Your task to perform on an android device: Open Yahoo.com Image 0: 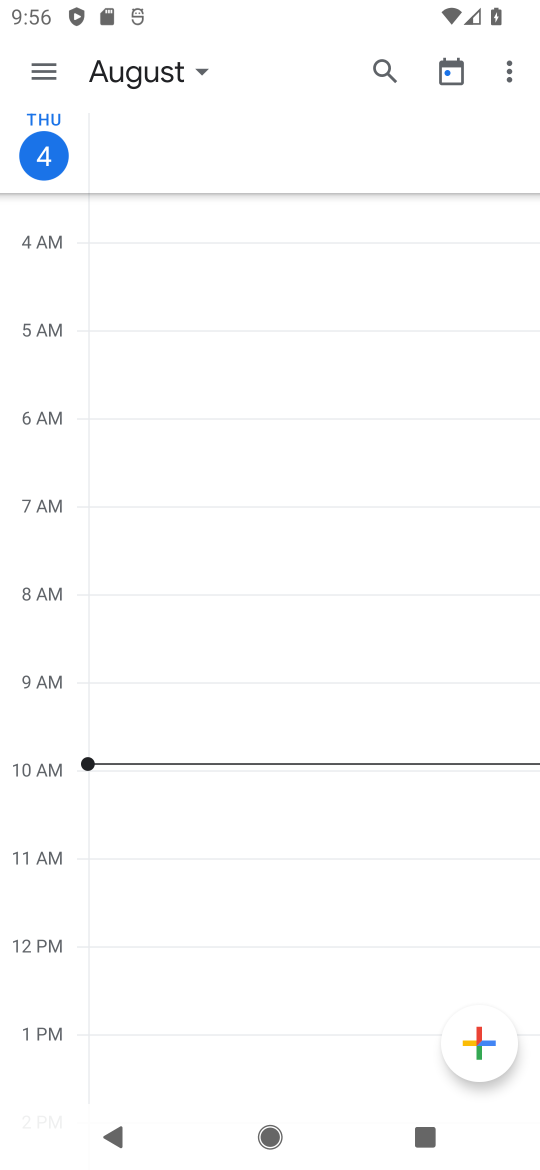
Step 0: press home button
Your task to perform on an android device: Open Yahoo.com Image 1: 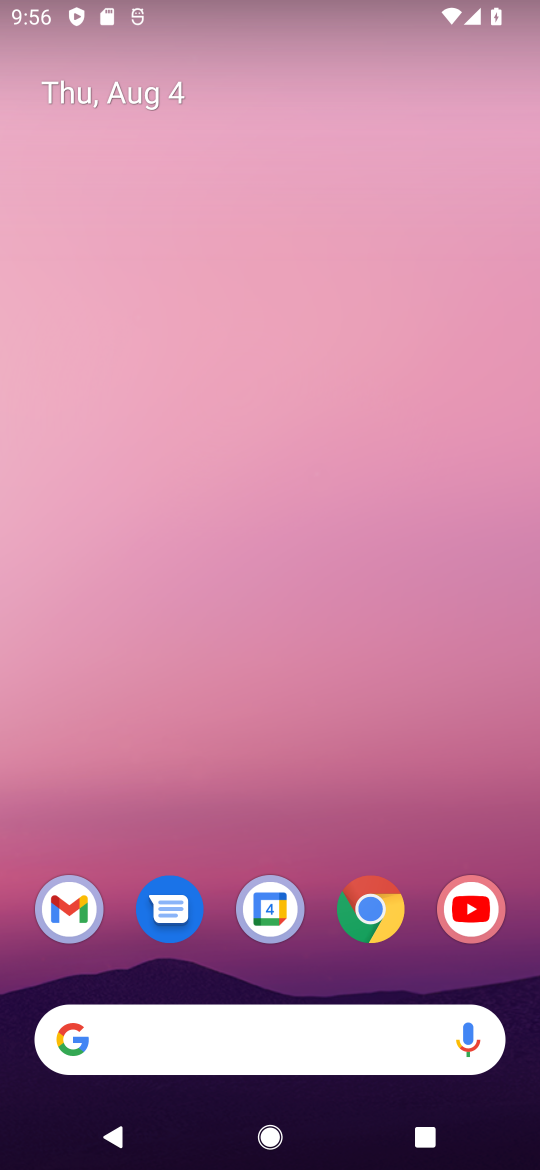
Step 1: click (376, 921)
Your task to perform on an android device: Open Yahoo.com Image 2: 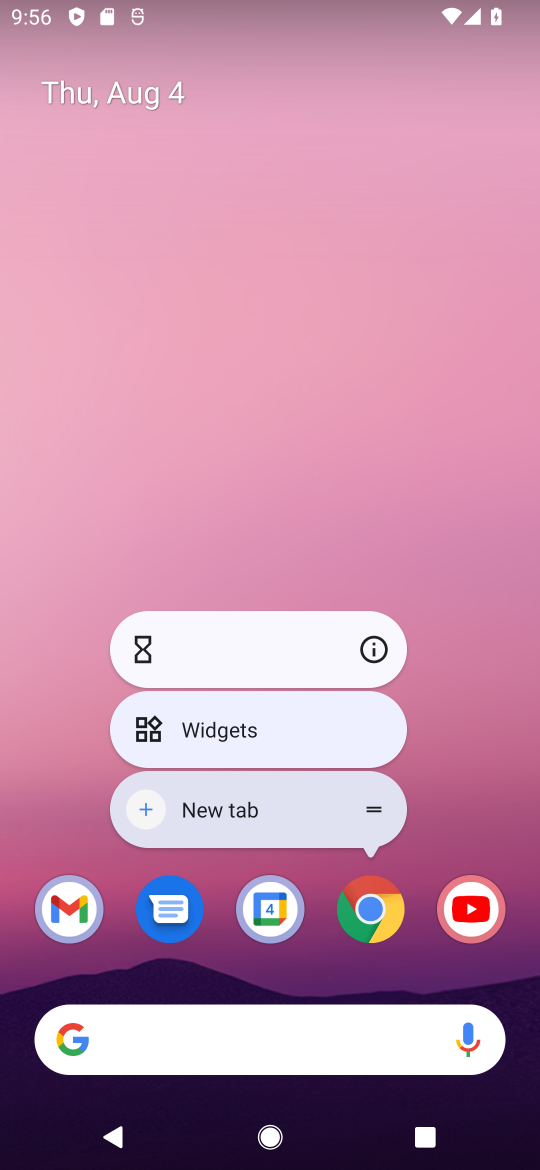
Step 2: click (373, 918)
Your task to perform on an android device: Open Yahoo.com Image 3: 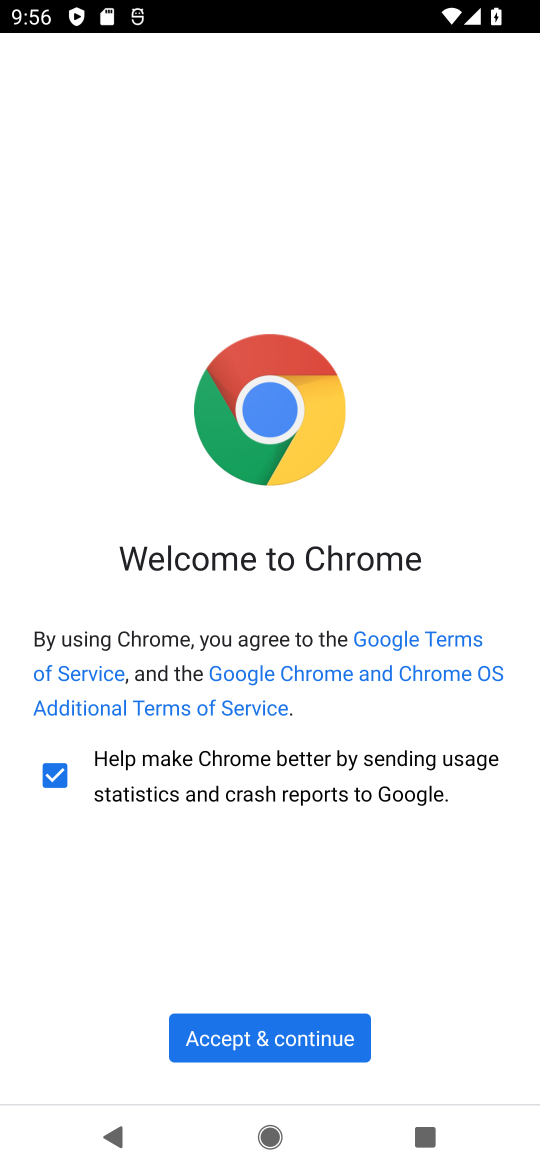
Step 3: click (224, 1030)
Your task to perform on an android device: Open Yahoo.com Image 4: 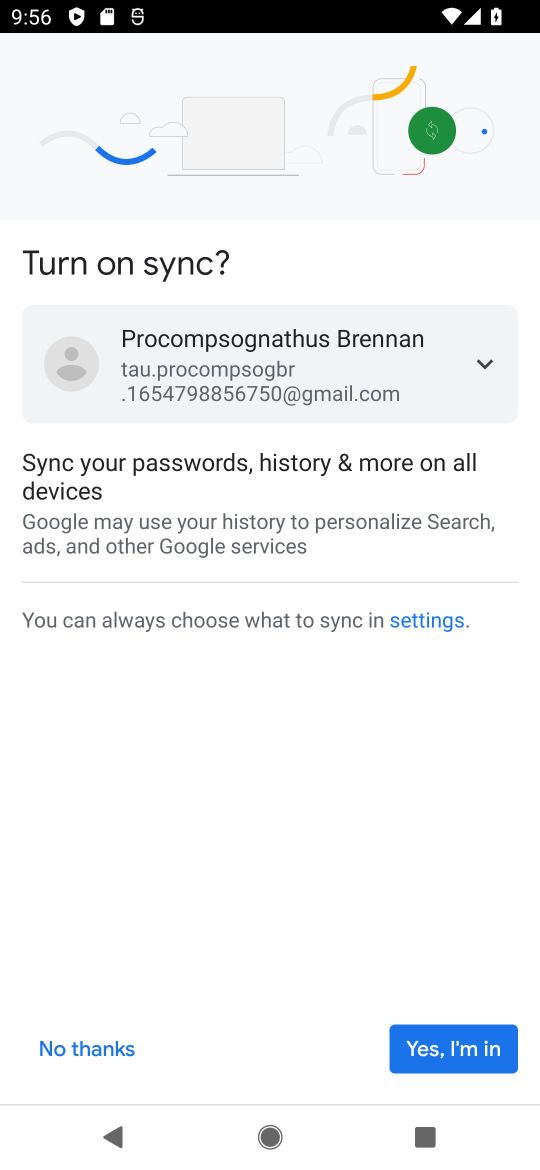
Step 4: click (86, 1057)
Your task to perform on an android device: Open Yahoo.com Image 5: 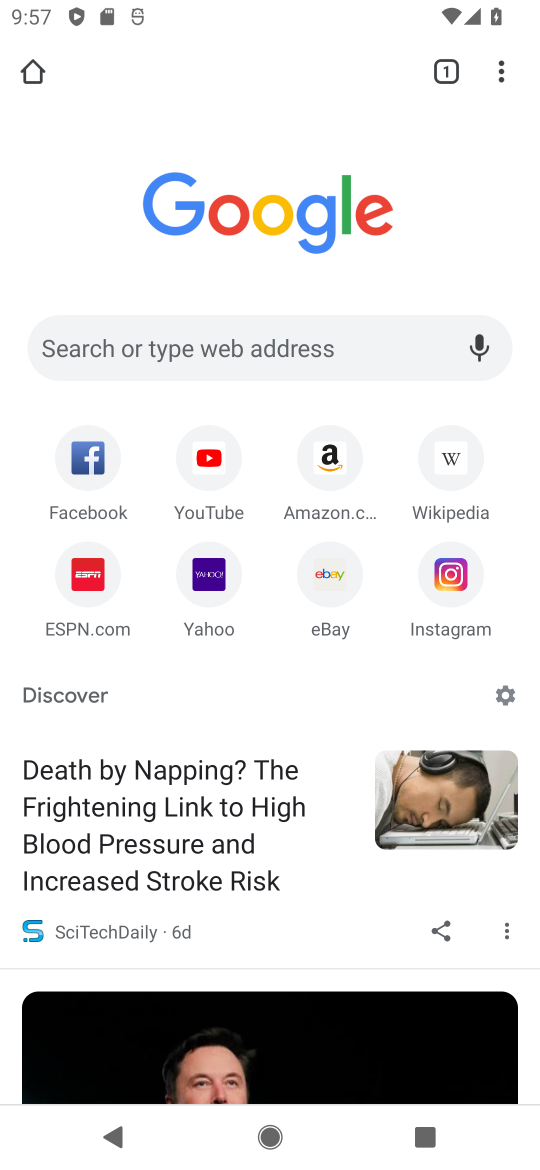
Step 5: click (203, 578)
Your task to perform on an android device: Open Yahoo.com Image 6: 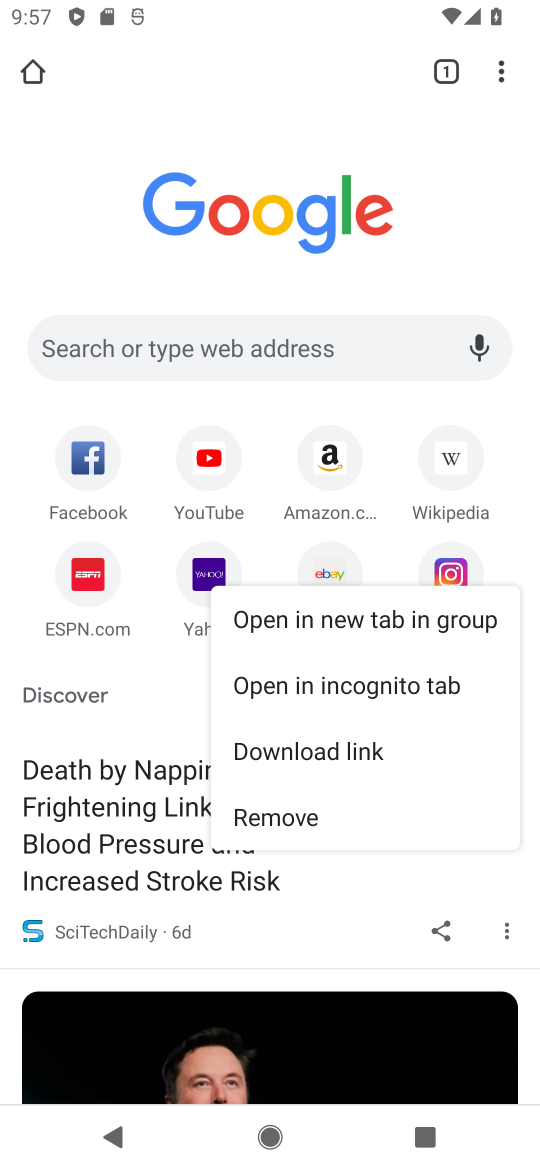
Step 6: click (203, 578)
Your task to perform on an android device: Open Yahoo.com Image 7: 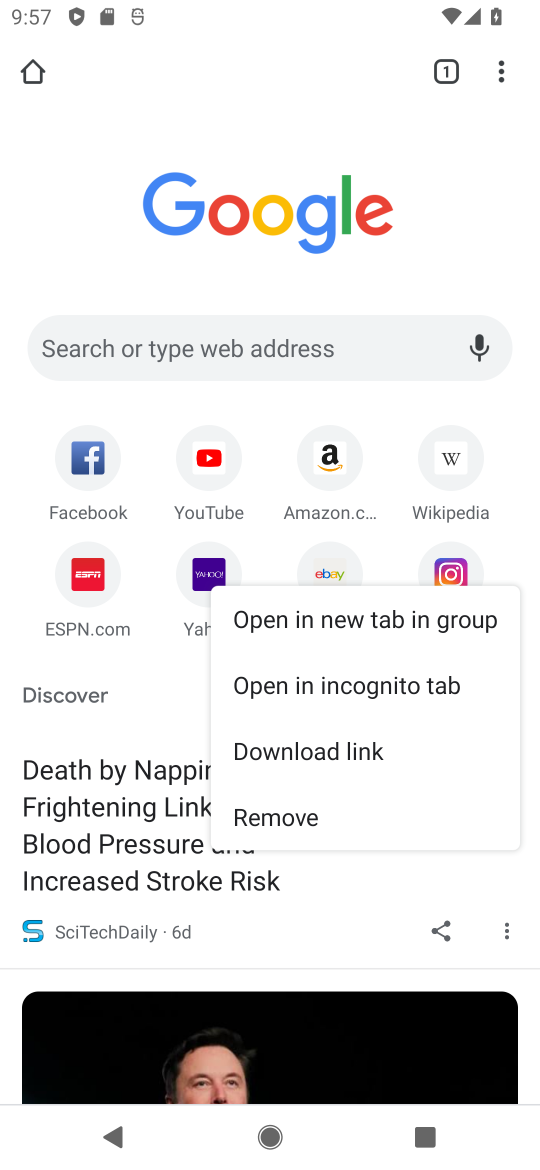
Step 7: click (201, 579)
Your task to perform on an android device: Open Yahoo.com Image 8: 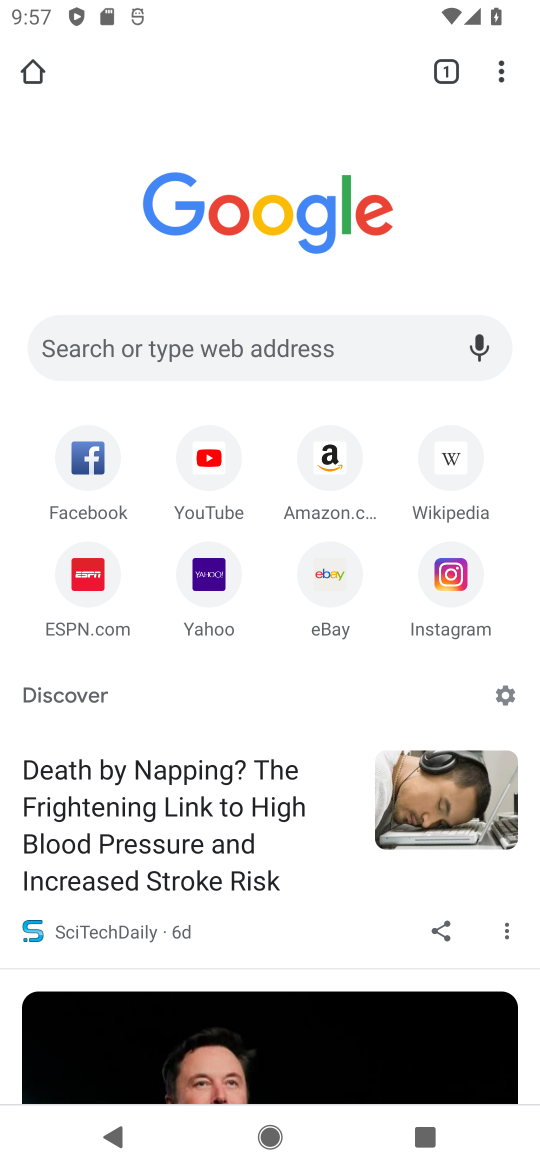
Step 8: click (209, 581)
Your task to perform on an android device: Open Yahoo.com Image 9: 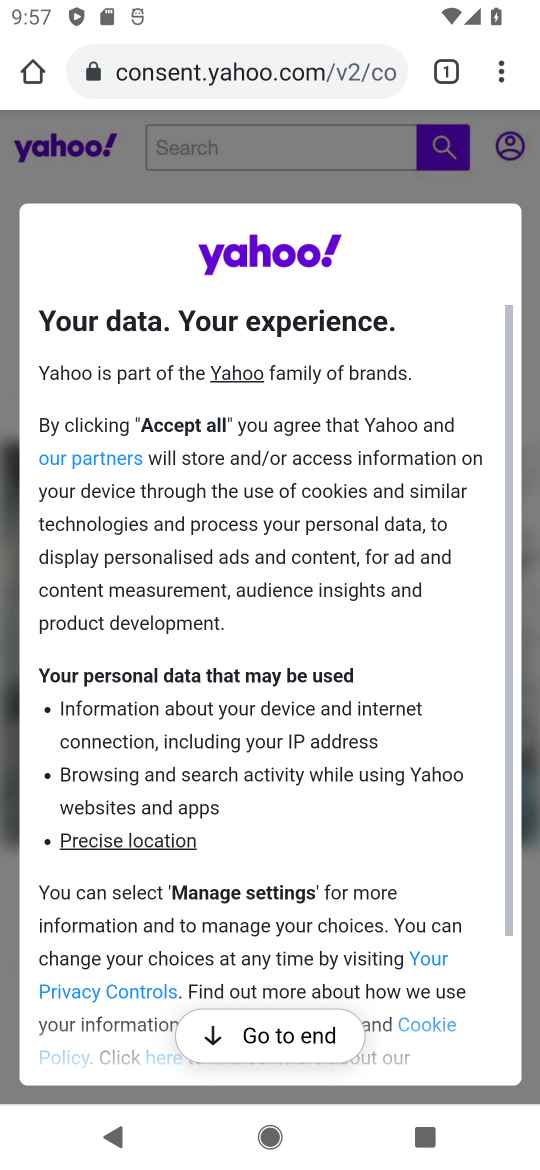
Step 9: task complete